Your task to perform on an android device: uninstall "Microsoft Excel" Image 0: 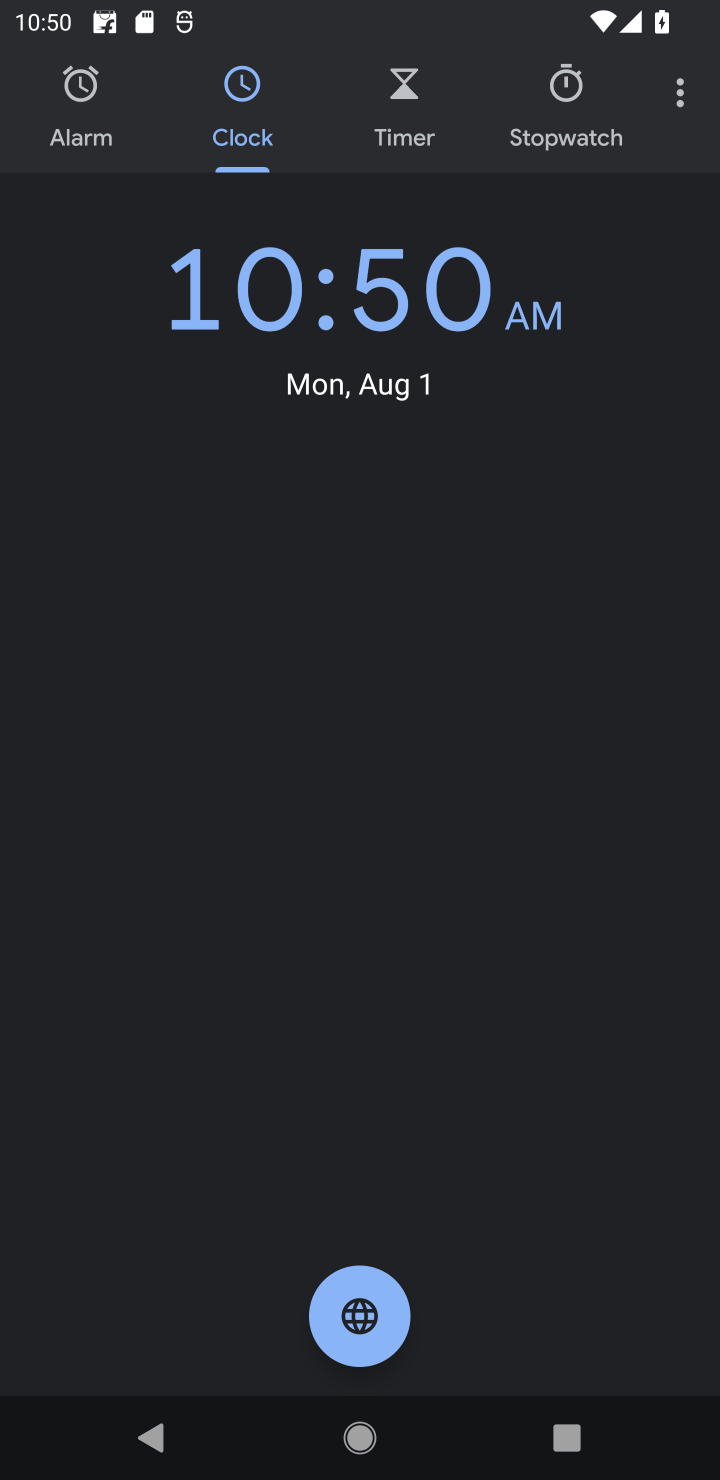
Step 0: press home button
Your task to perform on an android device: uninstall "Microsoft Excel" Image 1: 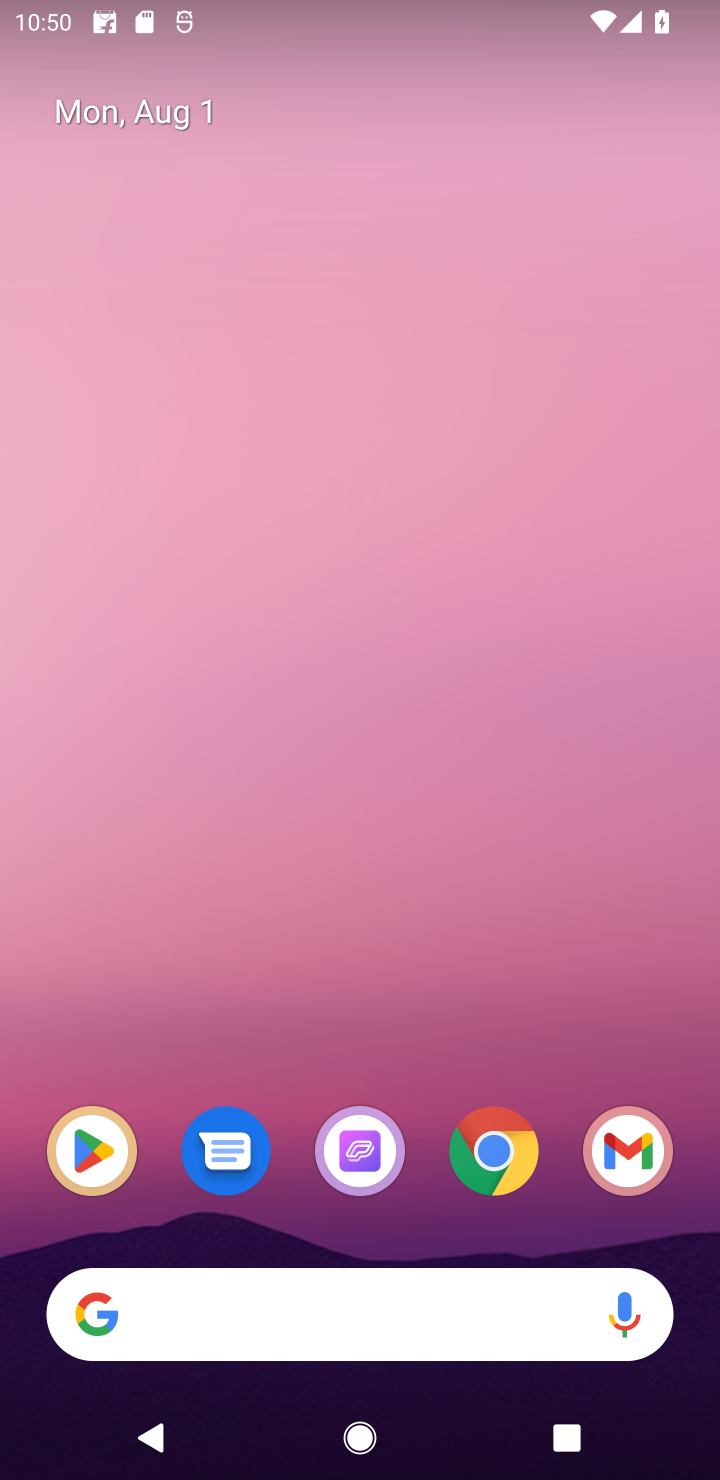
Step 1: click (91, 1153)
Your task to perform on an android device: uninstall "Microsoft Excel" Image 2: 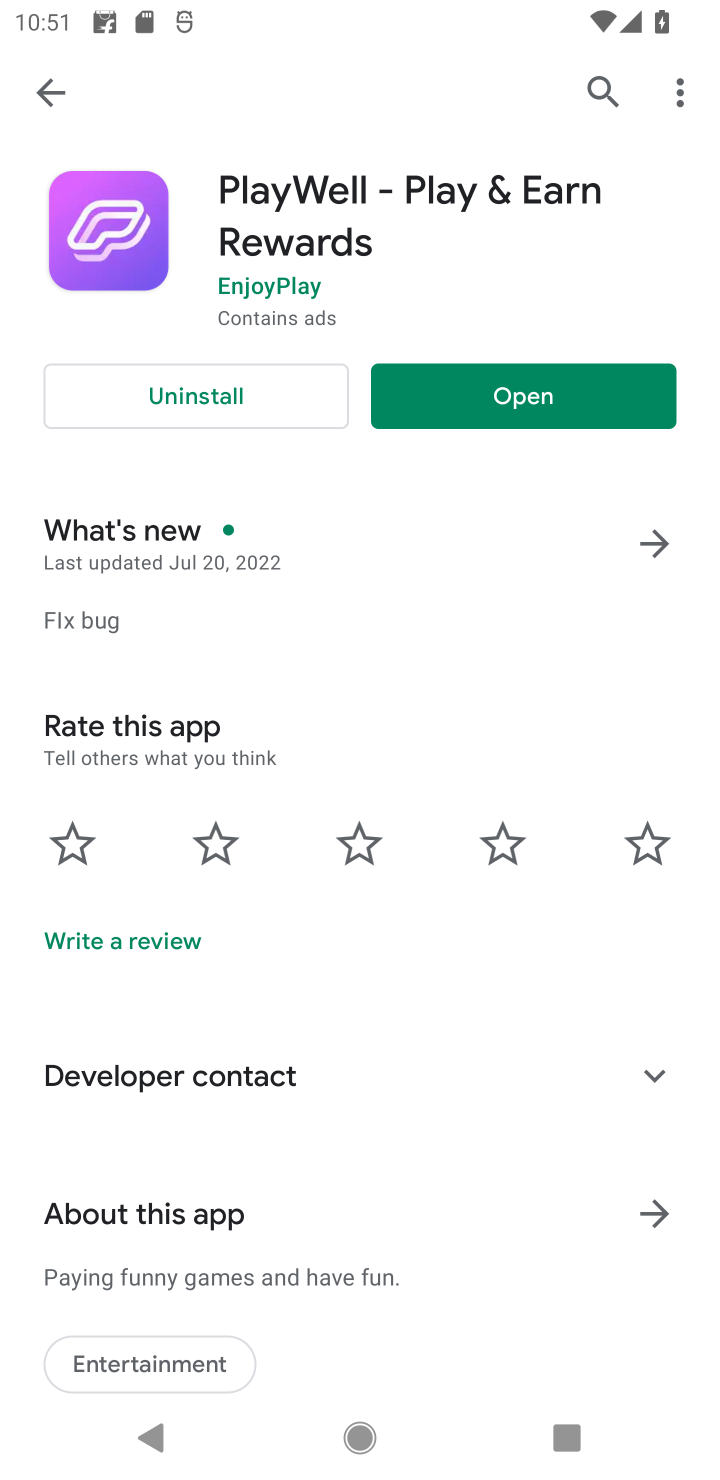
Step 2: click (615, 93)
Your task to perform on an android device: uninstall "Microsoft Excel" Image 3: 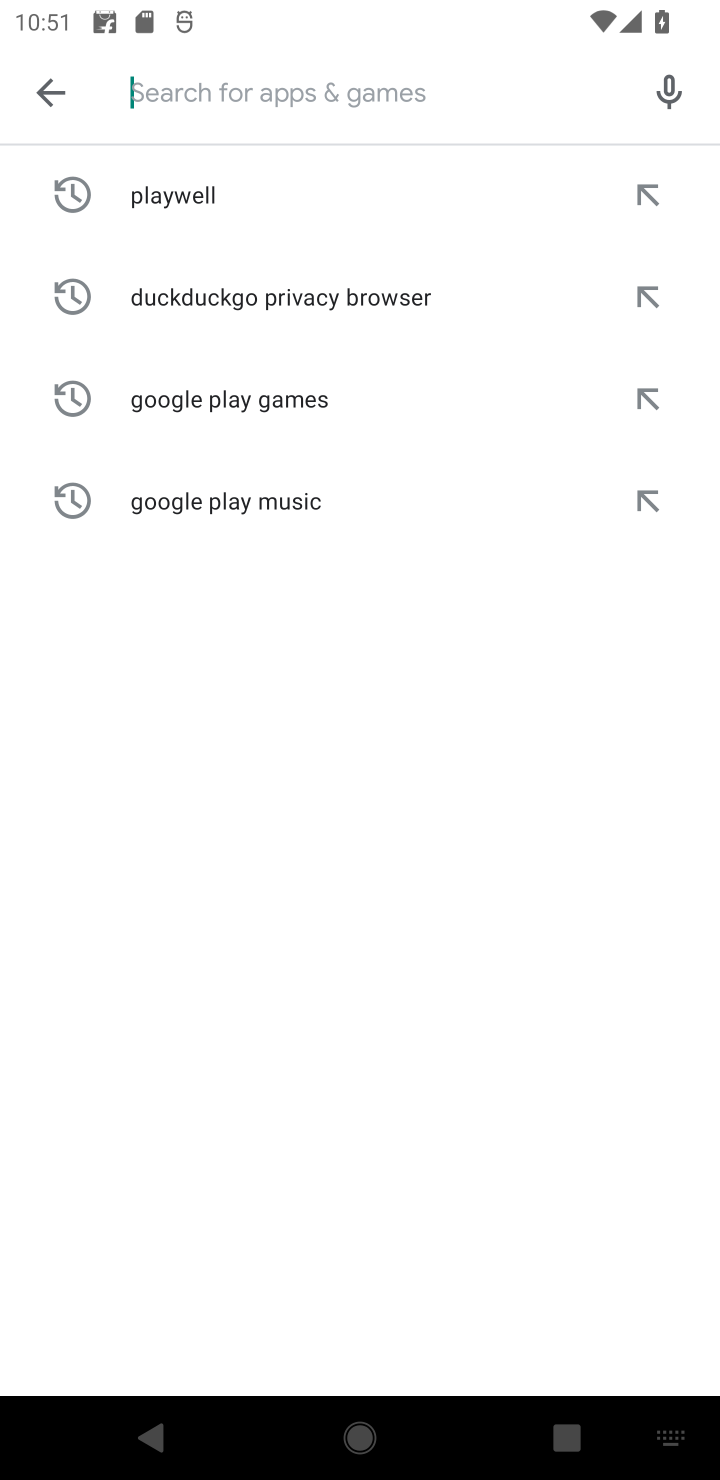
Step 3: type "Microsoft Excel"
Your task to perform on an android device: uninstall "Microsoft Excel" Image 4: 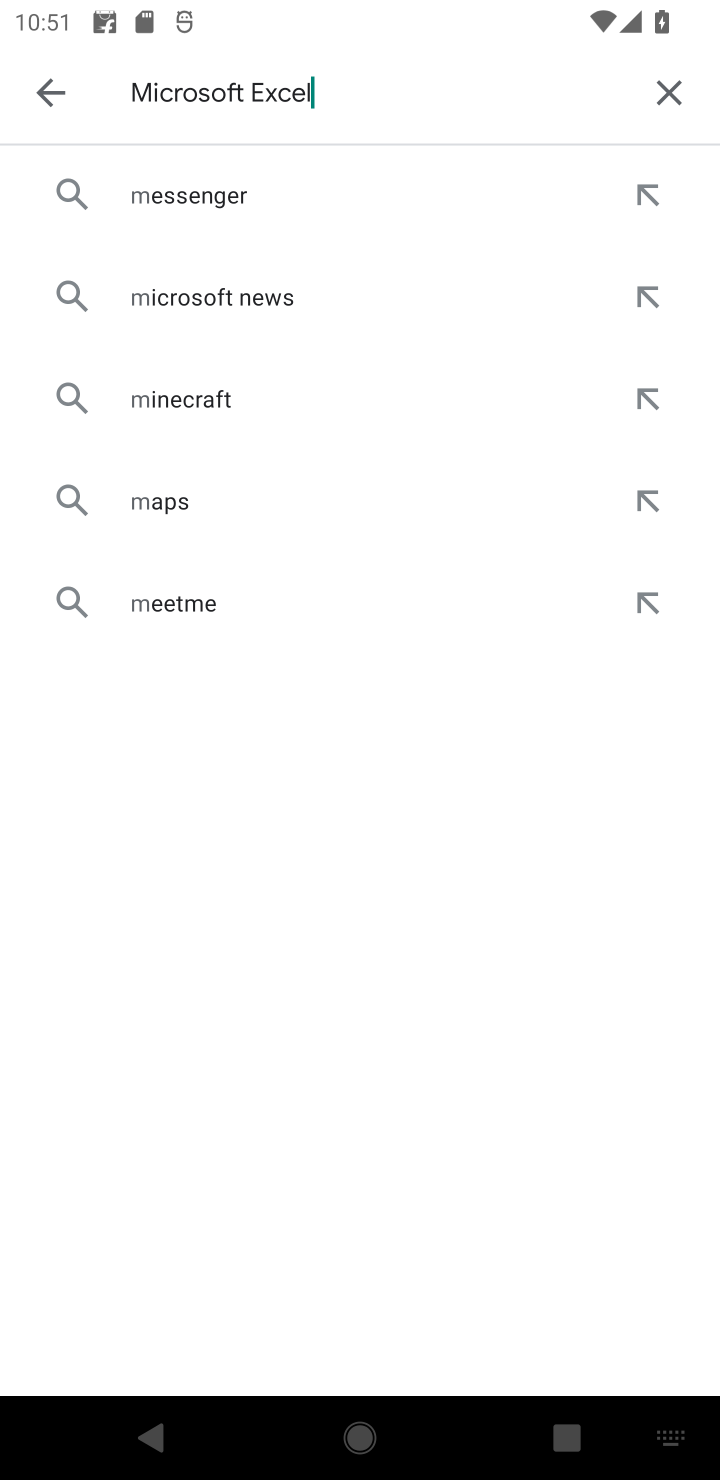
Step 4: type ""
Your task to perform on an android device: uninstall "Microsoft Excel" Image 5: 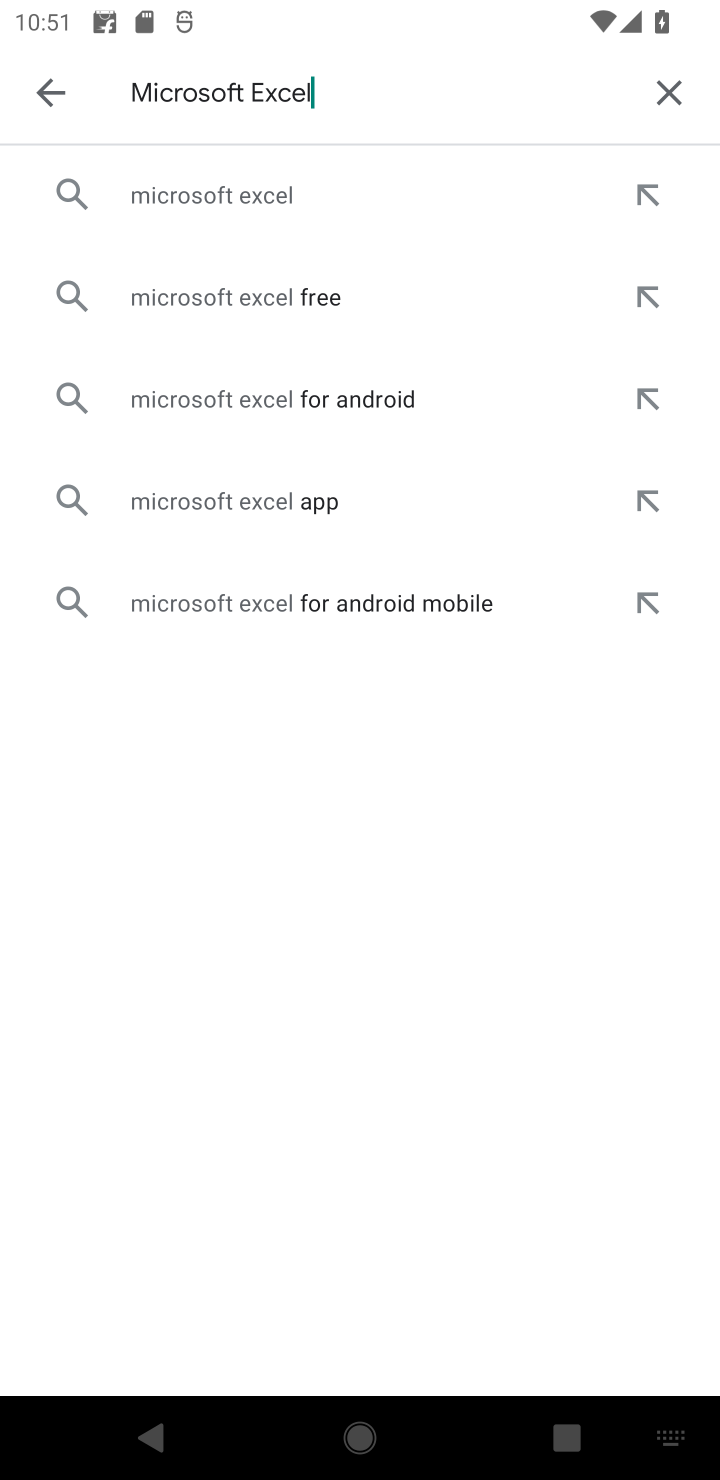
Step 5: click (346, 199)
Your task to perform on an android device: uninstall "Microsoft Excel" Image 6: 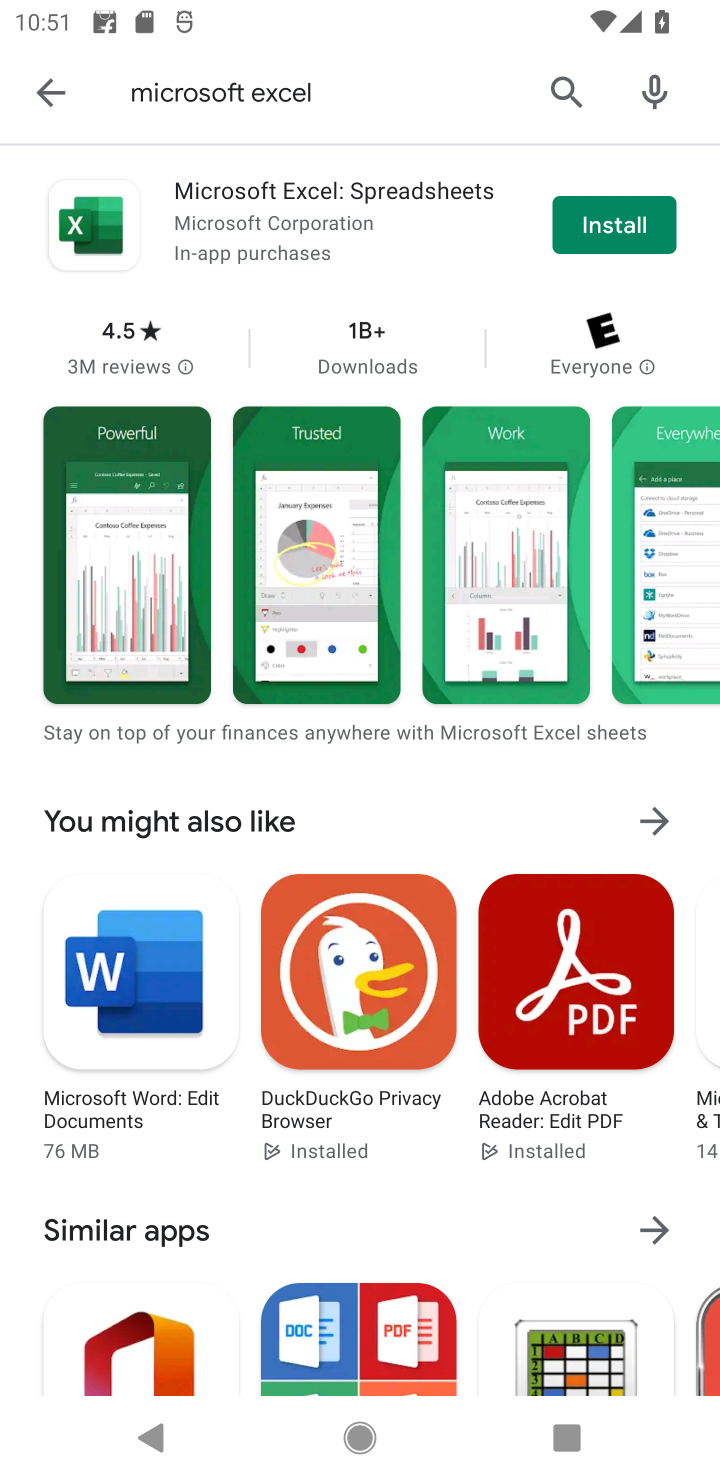
Step 6: click (341, 242)
Your task to perform on an android device: uninstall "Microsoft Excel" Image 7: 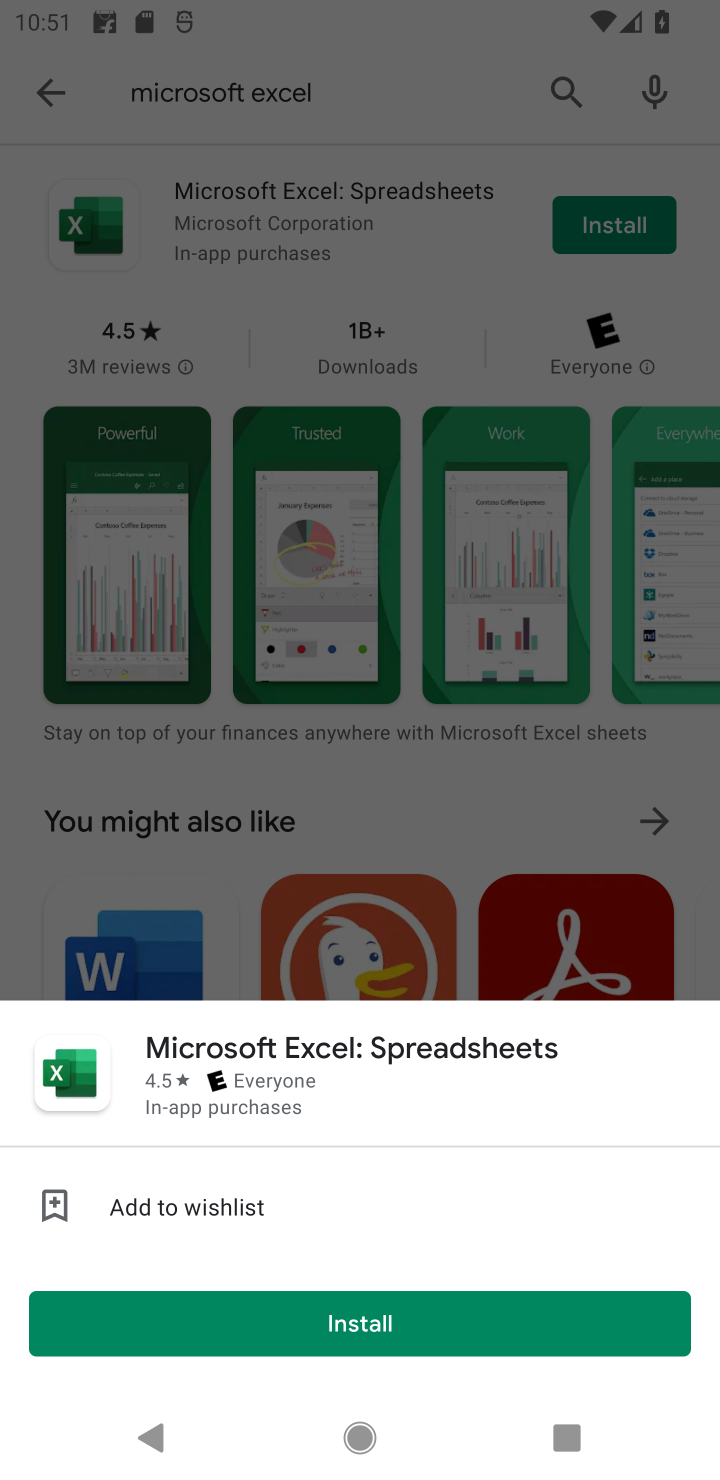
Step 7: click (233, 229)
Your task to perform on an android device: uninstall "Microsoft Excel" Image 8: 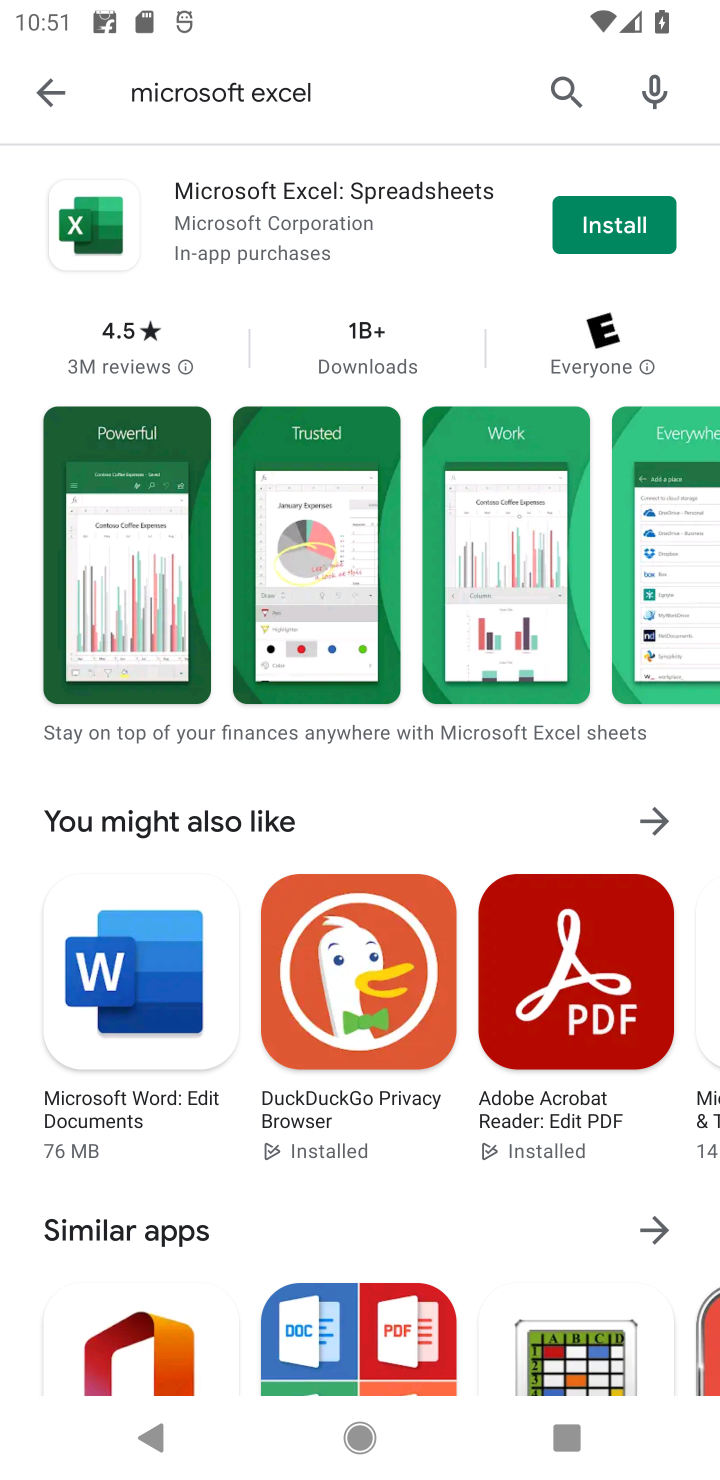
Step 8: task complete